Your task to perform on an android device: Open the web browser Image 0: 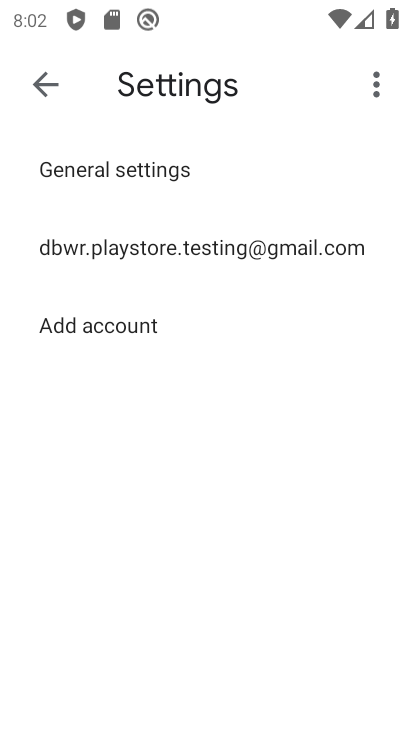
Step 0: press home button
Your task to perform on an android device: Open the web browser Image 1: 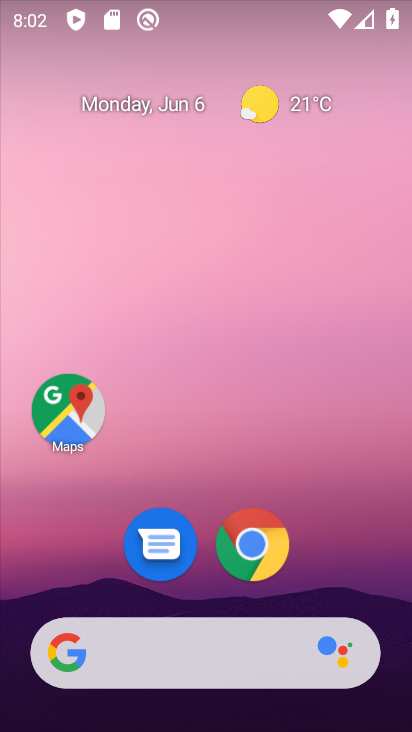
Step 1: click (259, 542)
Your task to perform on an android device: Open the web browser Image 2: 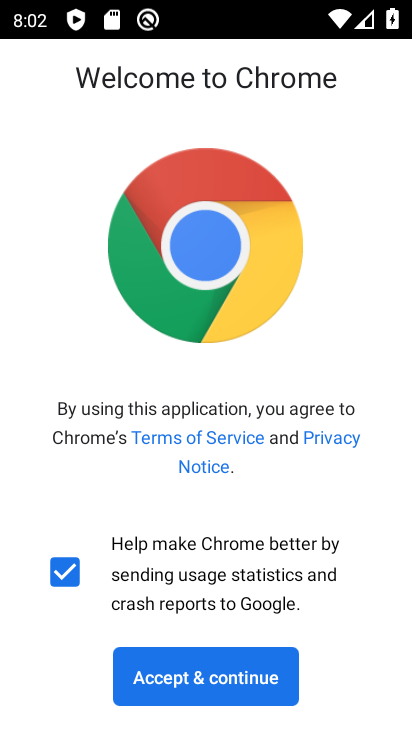
Step 2: click (222, 690)
Your task to perform on an android device: Open the web browser Image 3: 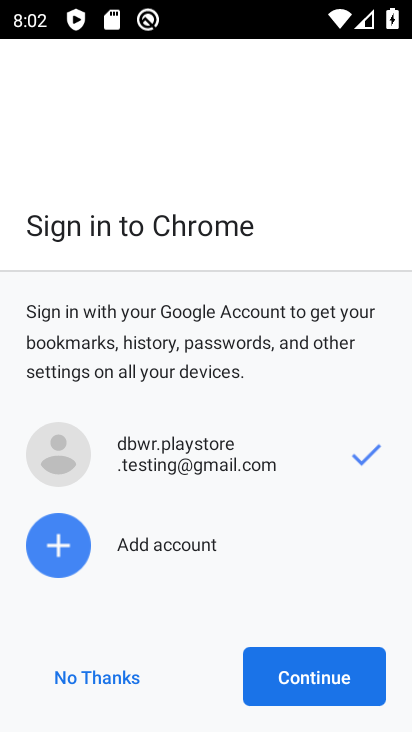
Step 3: click (353, 700)
Your task to perform on an android device: Open the web browser Image 4: 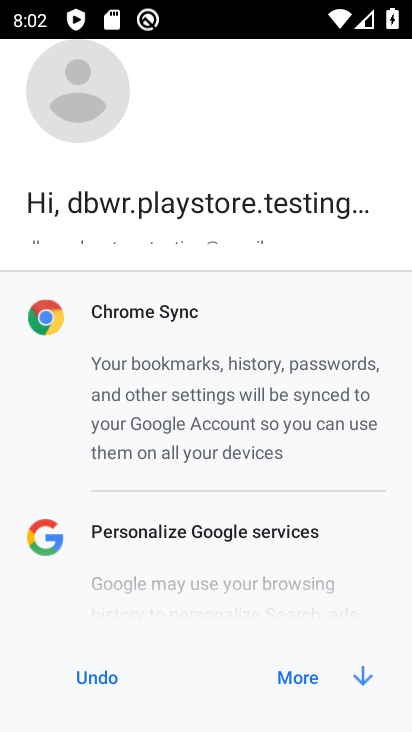
Step 4: click (321, 678)
Your task to perform on an android device: Open the web browser Image 5: 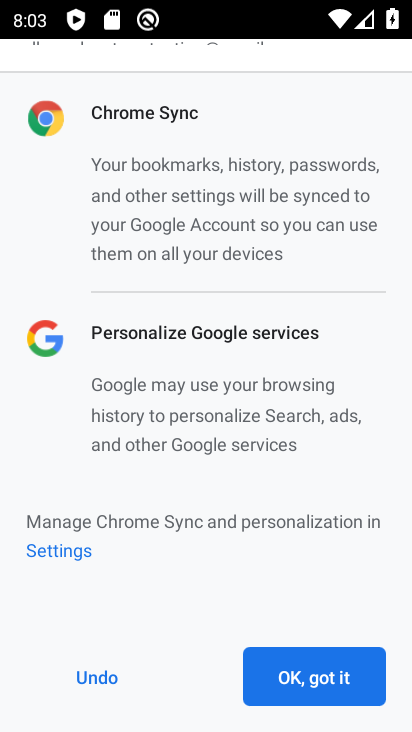
Step 5: click (331, 703)
Your task to perform on an android device: Open the web browser Image 6: 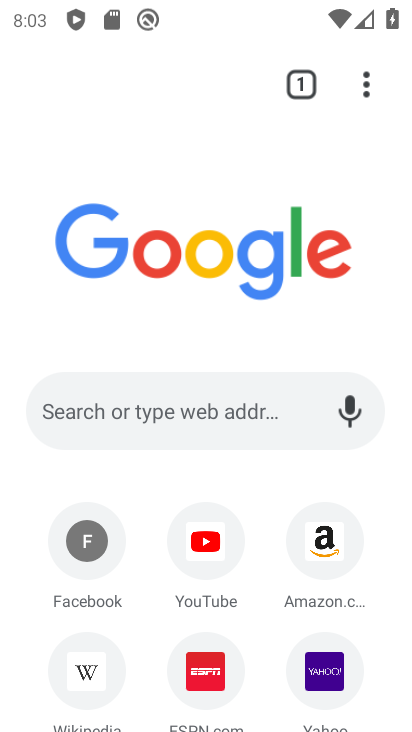
Step 6: click (180, 413)
Your task to perform on an android device: Open the web browser Image 7: 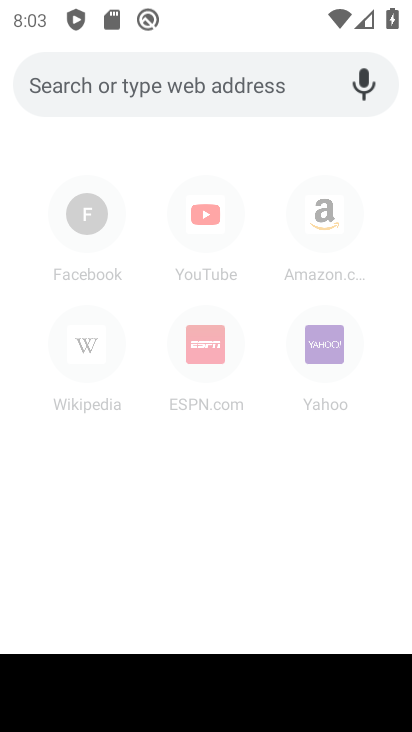
Step 7: task complete